Your task to perform on an android device: open app "Airtel Thanks" (install if not already installed) and go to login screen Image 0: 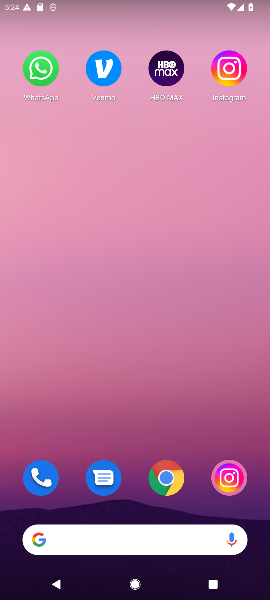
Step 0: drag from (149, 431) to (171, 0)
Your task to perform on an android device: open app "Airtel Thanks" (install if not already installed) and go to login screen Image 1: 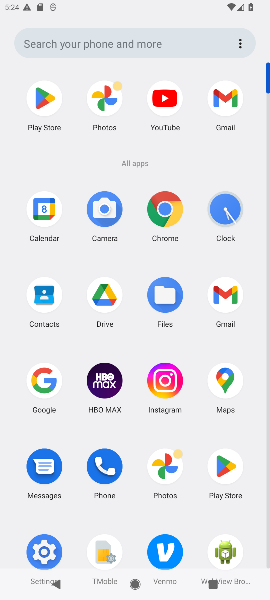
Step 1: drag from (80, 424) to (90, 325)
Your task to perform on an android device: open app "Airtel Thanks" (install if not already installed) and go to login screen Image 2: 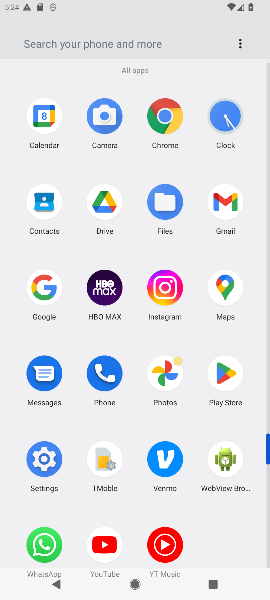
Step 2: click (229, 380)
Your task to perform on an android device: open app "Airtel Thanks" (install if not already installed) and go to login screen Image 3: 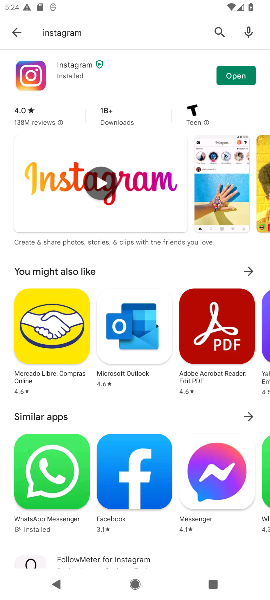
Step 3: click (182, 35)
Your task to perform on an android device: open app "Airtel Thanks" (install if not already installed) and go to login screen Image 4: 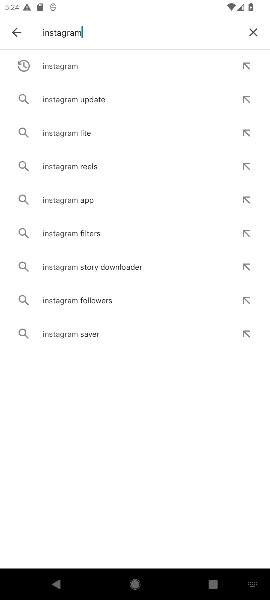
Step 4: click (253, 25)
Your task to perform on an android device: open app "Airtel Thanks" (install if not already installed) and go to login screen Image 5: 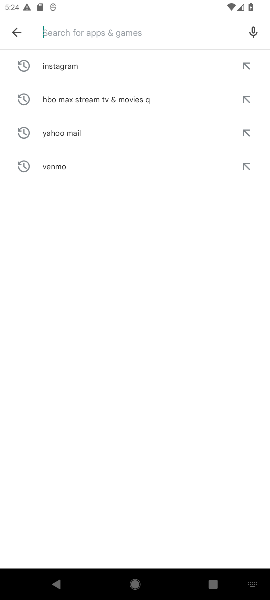
Step 5: type "airtel thanks"
Your task to perform on an android device: open app "Airtel Thanks" (install if not already installed) and go to login screen Image 6: 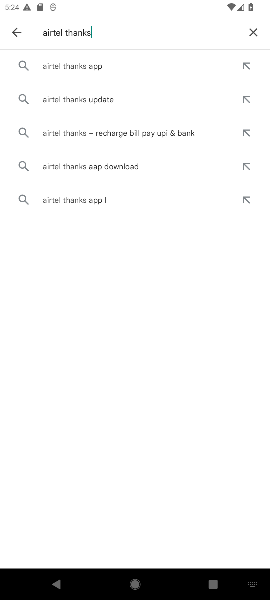
Step 6: click (89, 67)
Your task to perform on an android device: open app "Airtel Thanks" (install if not already installed) and go to login screen Image 7: 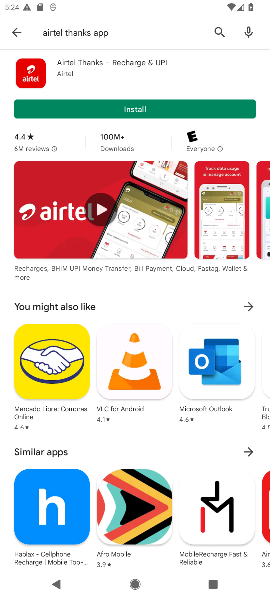
Step 7: click (113, 106)
Your task to perform on an android device: open app "Airtel Thanks" (install if not already installed) and go to login screen Image 8: 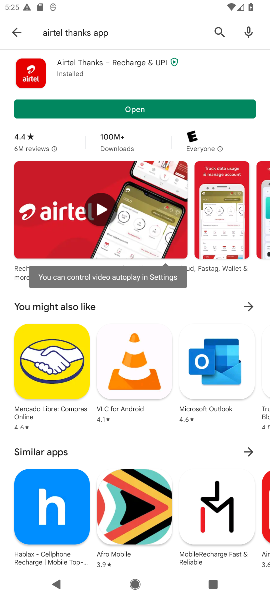
Step 8: click (235, 106)
Your task to perform on an android device: open app "Airtel Thanks" (install if not already installed) and go to login screen Image 9: 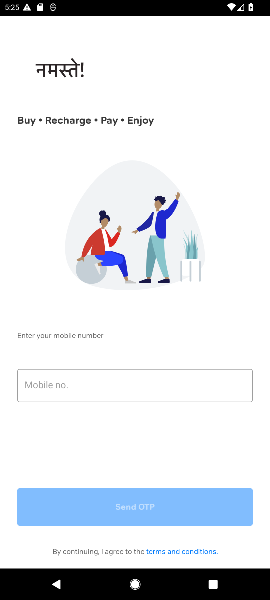
Step 9: task complete